Your task to perform on an android device: make emails show in primary in the gmail app Image 0: 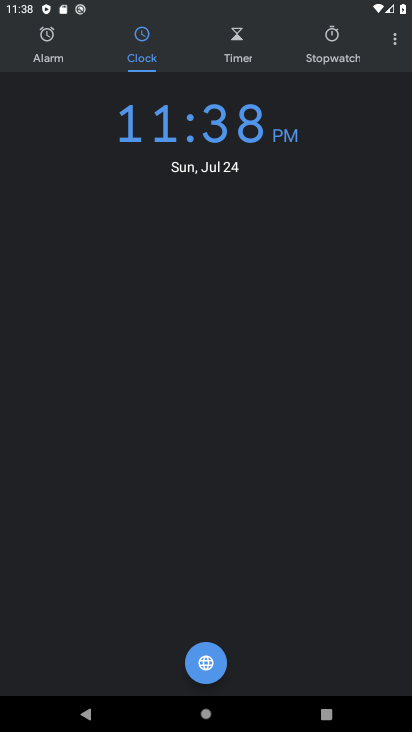
Step 0: press home button
Your task to perform on an android device: make emails show in primary in the gmail app Image 1: 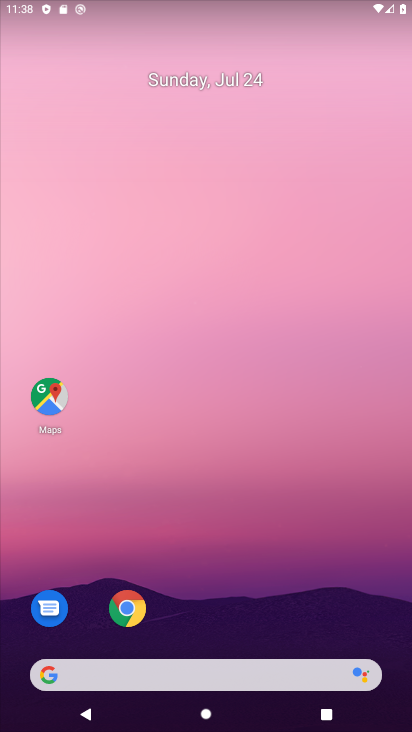
Step 1: drag from (0, 696) to (271, 63)
Your task to perform on an android device: make emails show in primary in the gmail app Image 2: 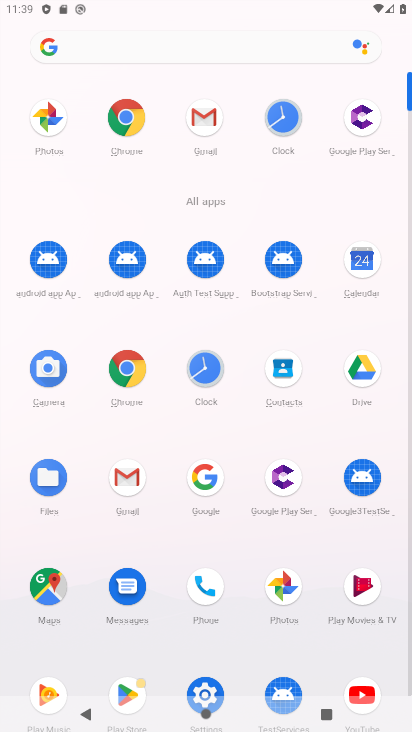
Step 2: click (209, 122)
Your task to perform on an android device: make emails show in primary in the gmail app Image 3: 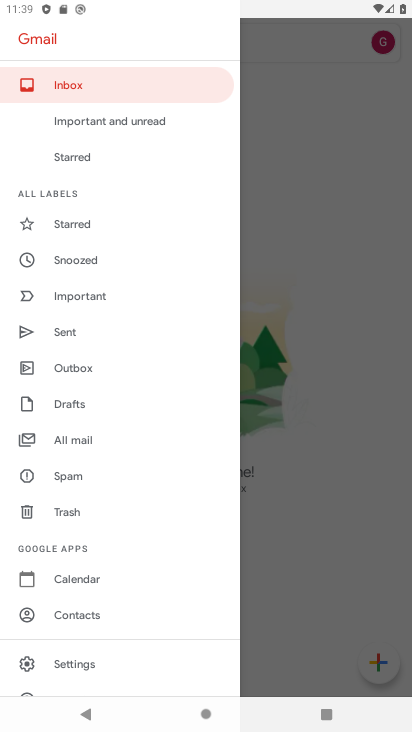
Step 3: task complete